Your task to perform on an android device: toggle wifi Image 0: 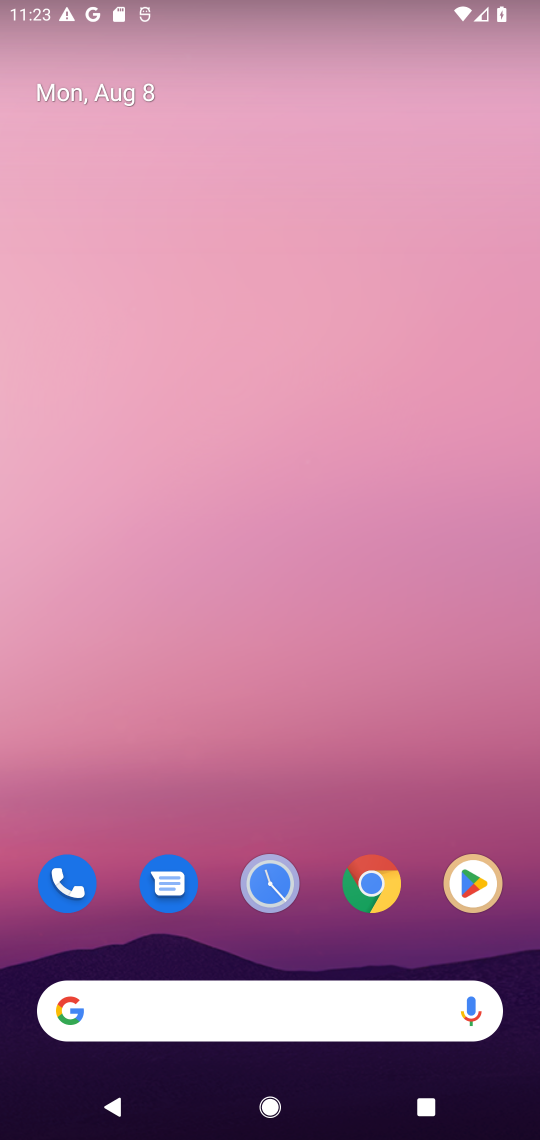
Step 0: press home button
Your task to perform on an android device: toggle wifi Image 1: 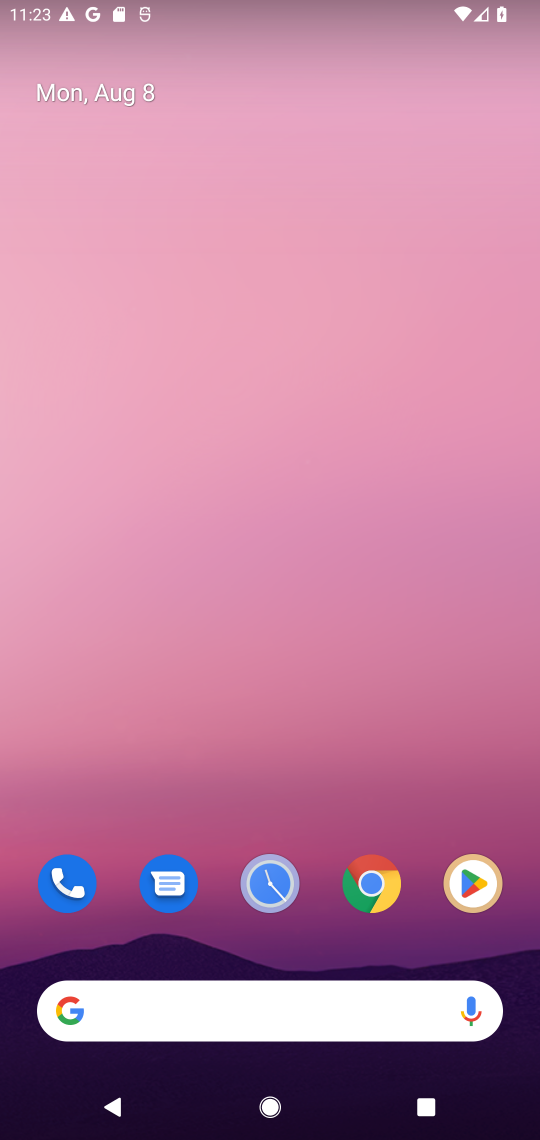
Step 1: drag from (317, 891) to (371, 168)
Your task to perform on an android device: toggle wifi Image 2: 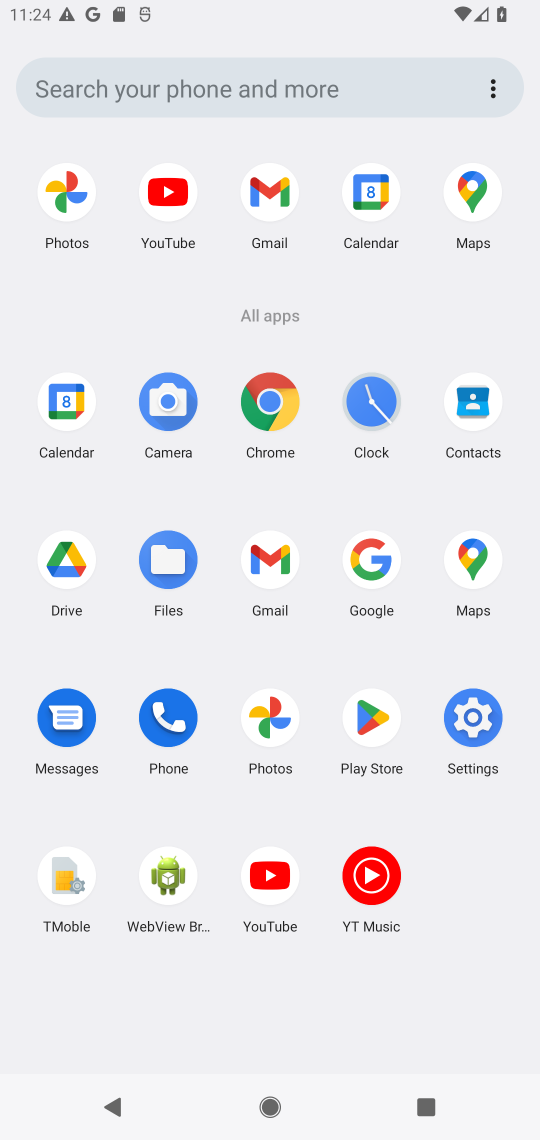
Step 2: click (470, 706)
Your task to perform on an android device: toggle wifi Image 3: 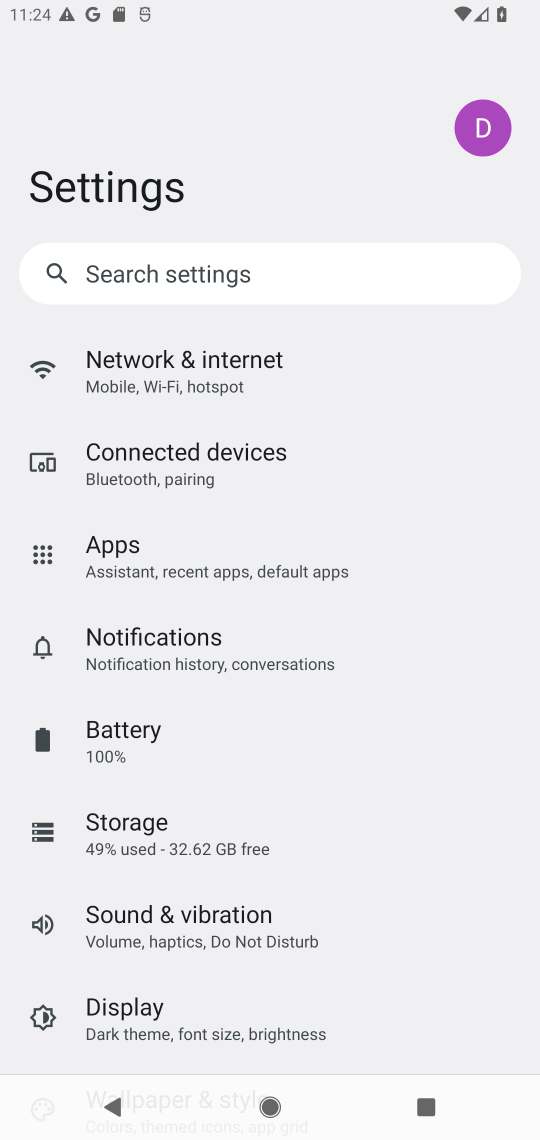
Step 3: click (189, 364)
Your task to perform on an android device: toggle wifi Image 4: 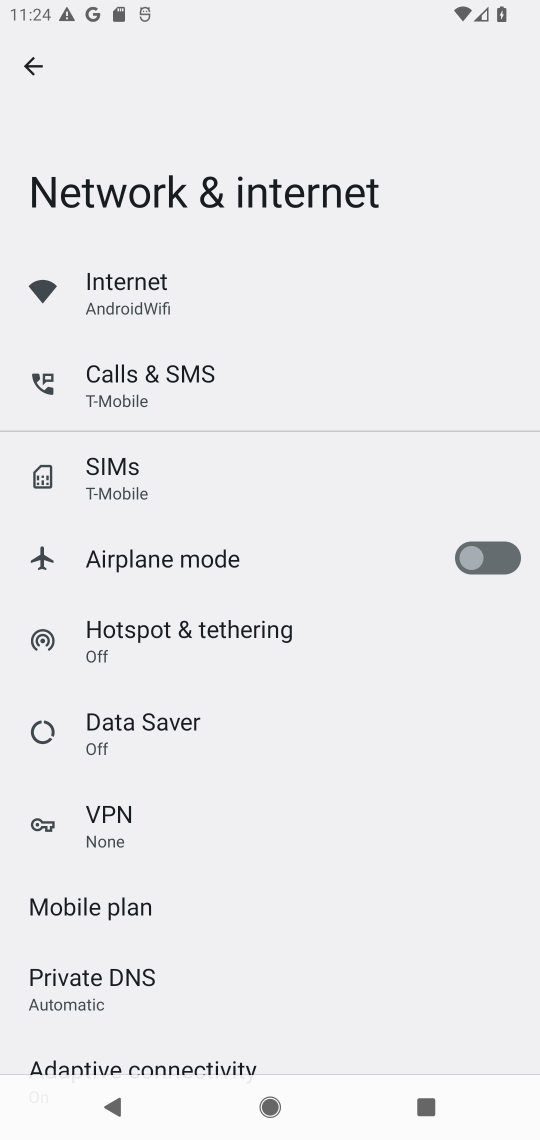
Step 4: click (213, 295)
Your task to perform on an android device: toggle wifi Image 5: 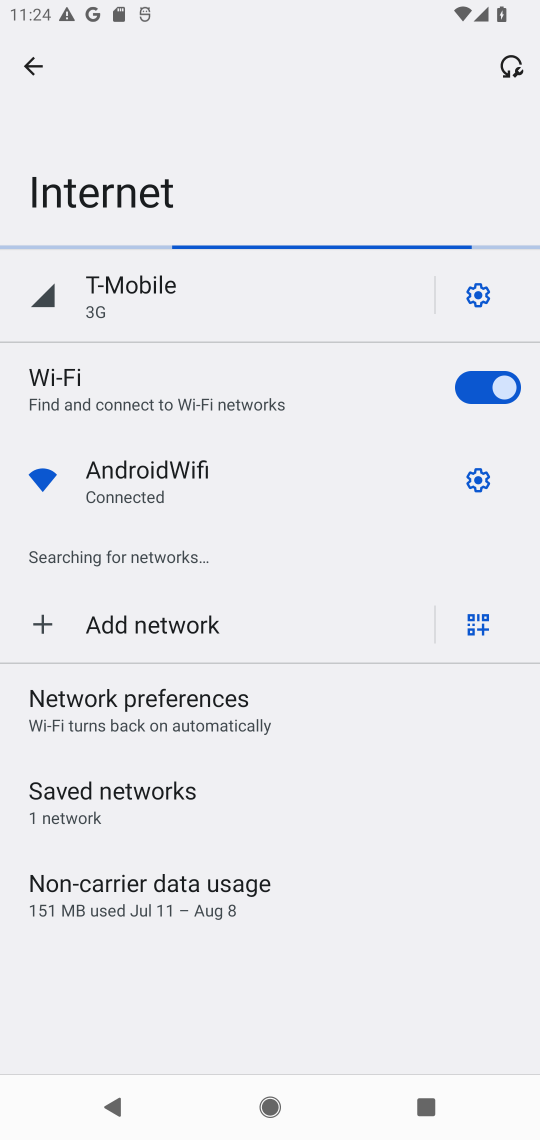
Step 5: click (477, 394)
Your task to perform on an android device: toggle wifi Image 6: 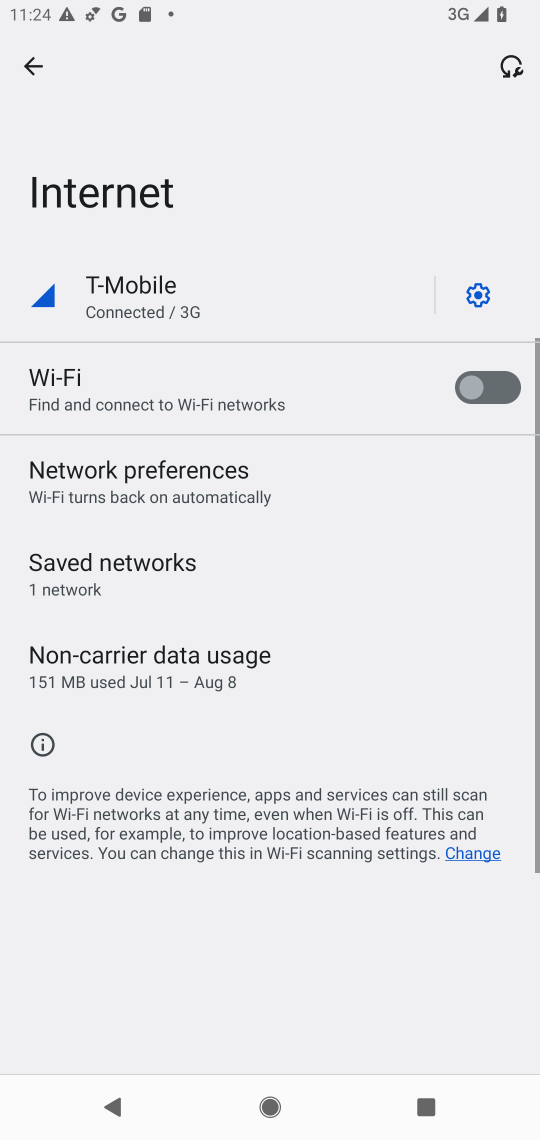
Step 6: task complete